Your task to perform on an android device: Empty the shopping cart on amazon. Search for "logitech g910" on amazon, select the first entry, add it to the cart, then select checkout. Image 0: 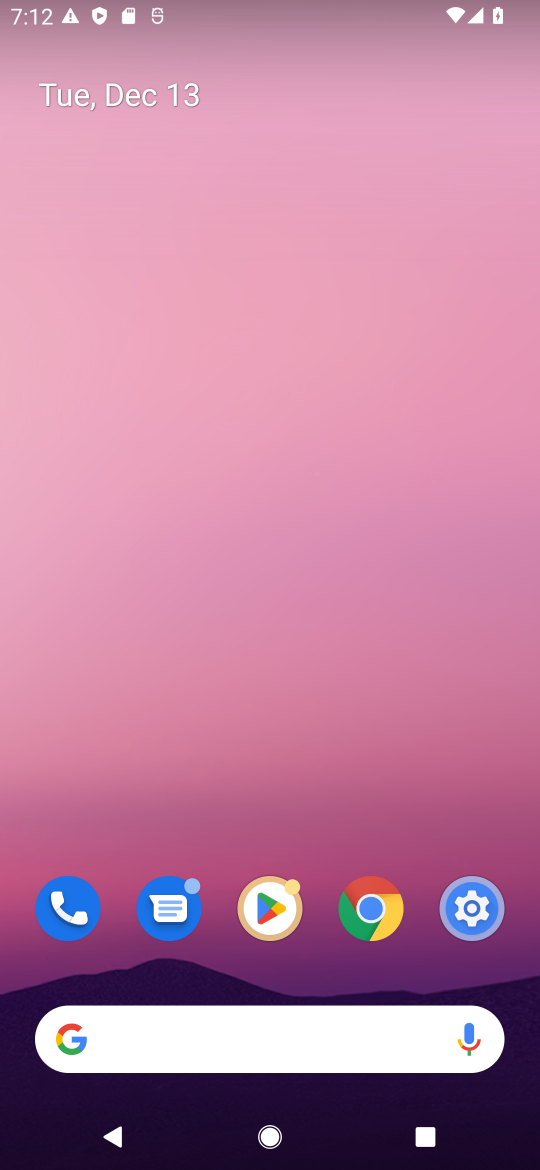
Step 0: press home button
Your task to perform on an android device: Empty the shopping cart on amazon. Search for "logitech g910" on amazon, select the first entry, add it to the cart, then select checkout. Image 1: 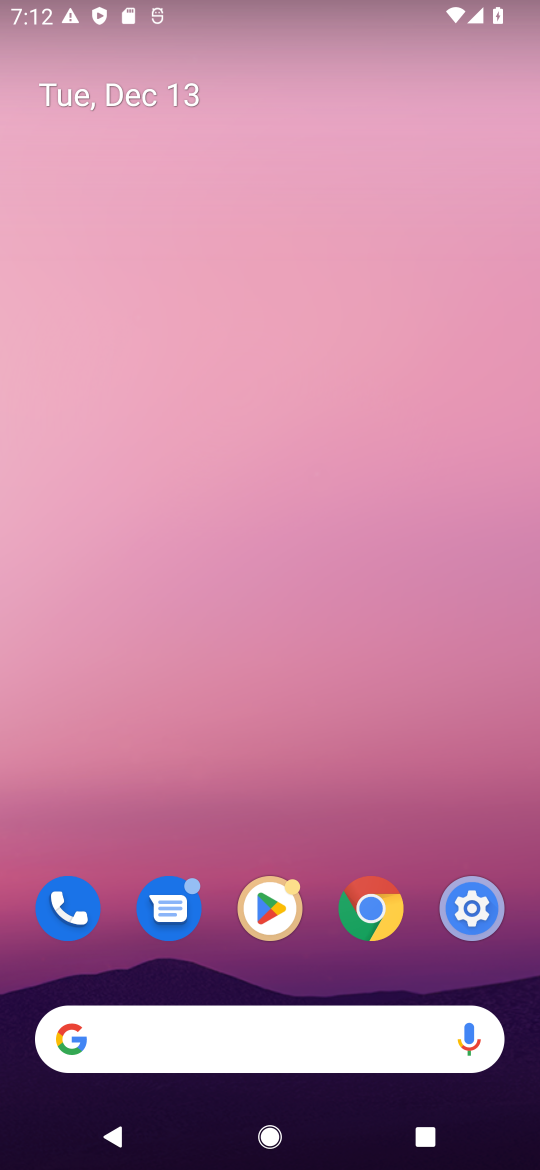
Step 1: click (100, 1041)
Your task to perform on an android device: Empty the shopping cart on amazon. Search for "logitech g910" on amazon, select the first entry, add it to the cart, then select checkout. Image 2: 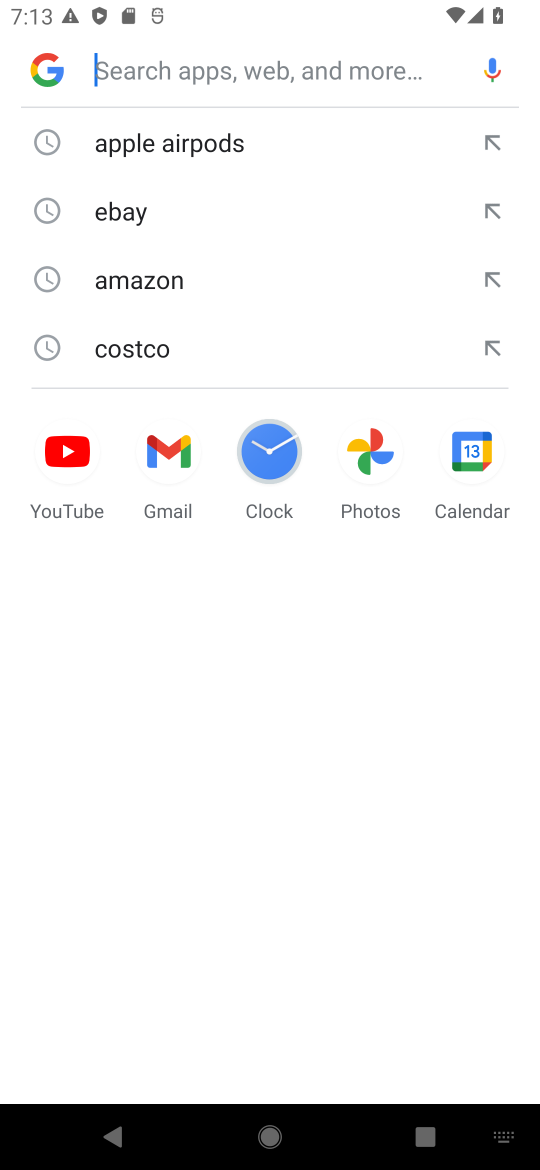
Step 2: type "amazon"
Your task to perform on an android device: Empty the shopping cart on amazon. Search for "logitech g910" on amazon, select the first entry, add it to the cart, then select checkout. Image 3: 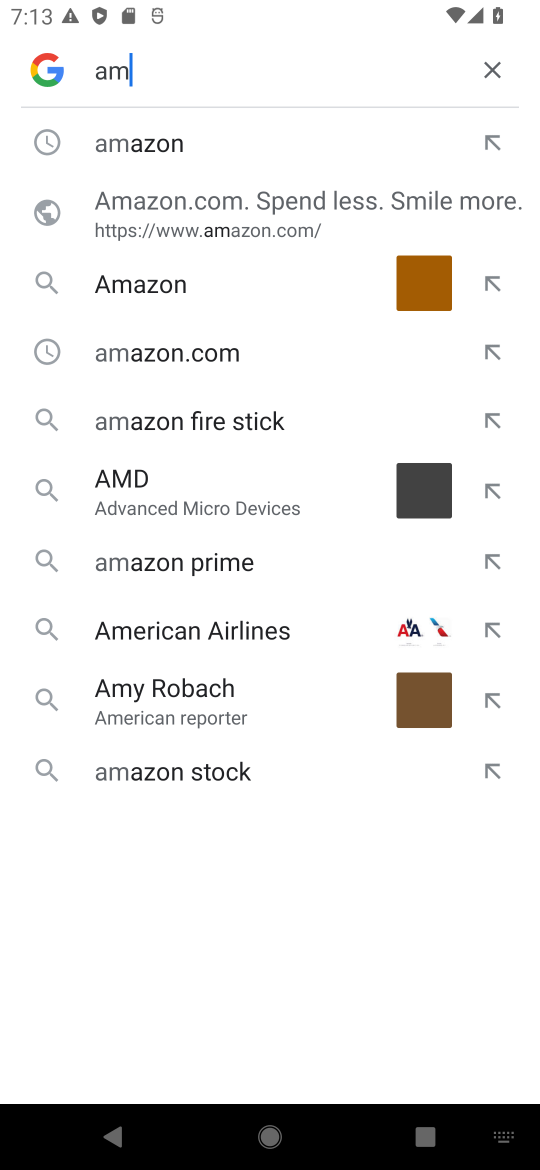
Step 3: press enter
Your task to perform on an android device: Empty the shopping cart on amazon. Search for "logitech g910" on amazon, select the first entry, add it to the cart, then select checkout. Image 4: 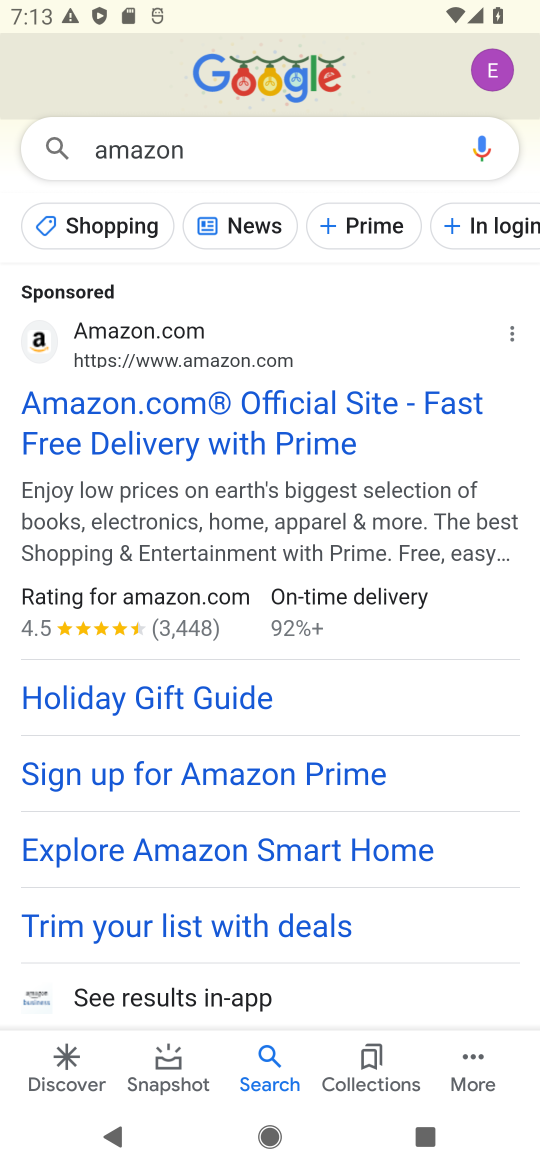
Step 4: click (125, 410)
Your task to perform on an android device: Empty the shopping cart on amazon. Search for "logitech g910" on amazon, select the first entry, add it to the cart, then select checkout. Image 5: 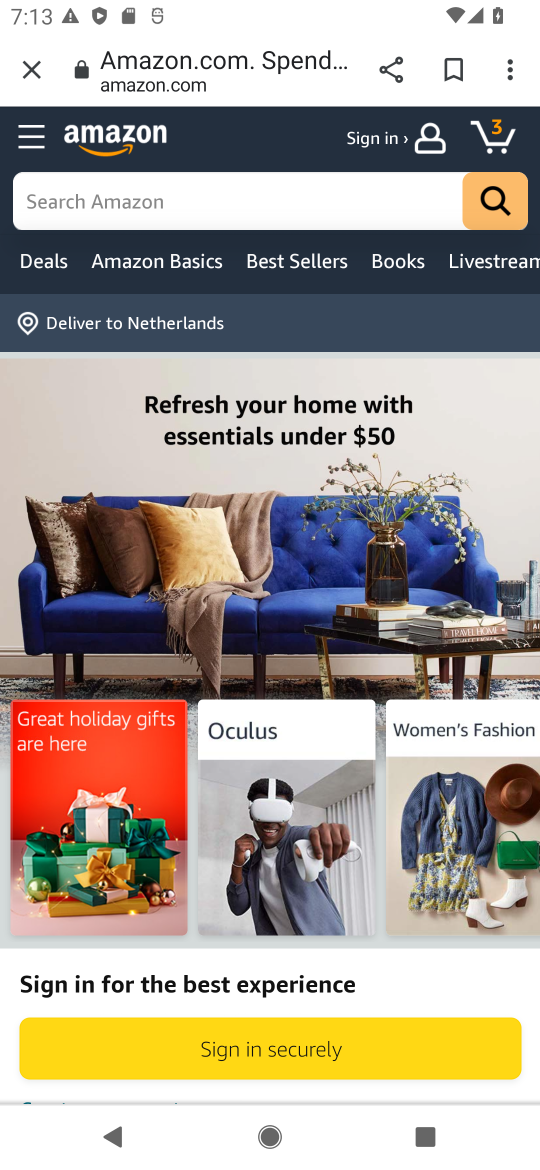
Step 5: click (504, 134)
Your task to perform on an android device: Empty the shopping cart on amazon. Search for "logitech g910" on amazon, select the first entry, add it to the cart, then select checkout. Image 6: 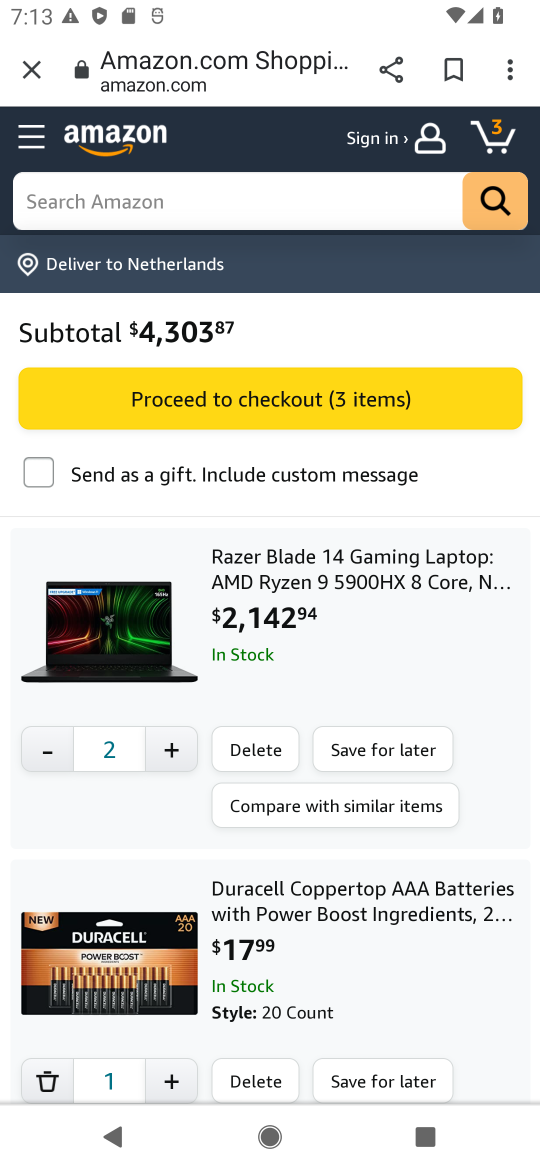
Step 6: click (261, 742)
Your task to perform on an android device: Empty the shopping cart on amazon. Search for "logitech g910" on amazon, select the first entry, add it to the cart, then select checkout. Image 7: 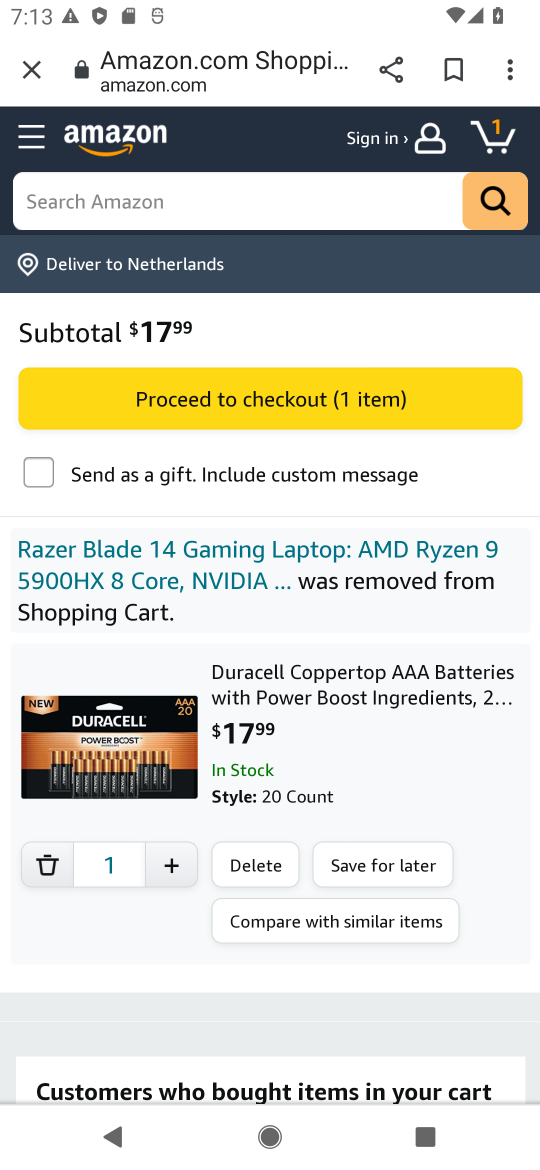
Step 7: click (261, 861)
Your task to perform on an android device: Empty the shopping cart on amazon. Search for "logitech g910" on amazon, select the first entry, add it to the cart, then select checkout. Image 8: 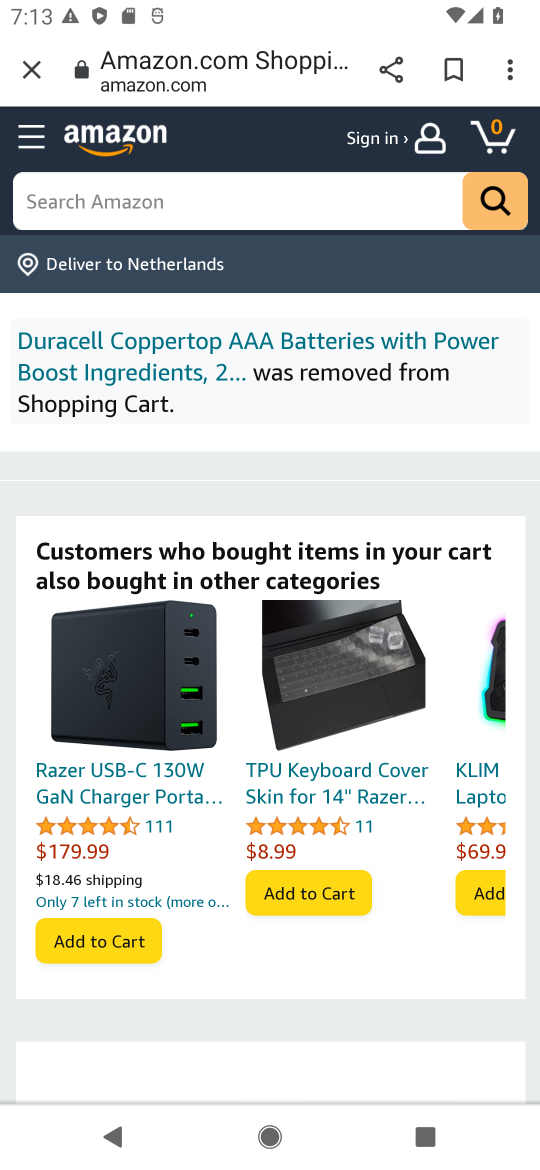
Step 8: click (186, 194)
Your task to perform on an android device: Empty the shopping cart on amazon. Search for "logitech g910" on amazon, select the first entry, add it to the cart, then select checkout. Image 9: 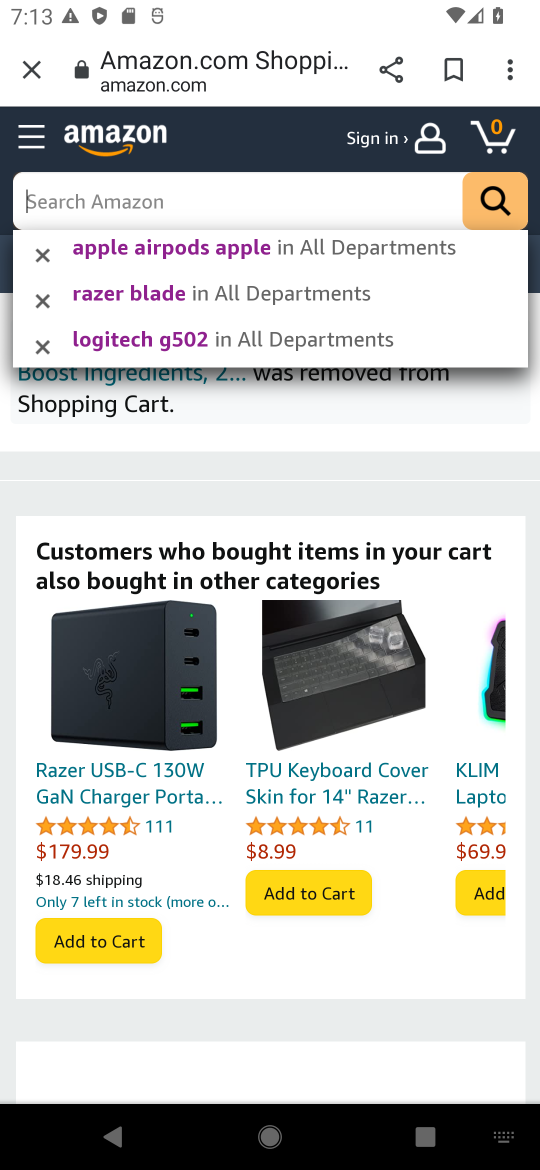
Step 9: type "logitech g910"
Your task to perform on an android device: Empty the shopping cart on amazon. Search for "logitech g910" on amazon, select the first entry, add it to the cart, then select checkout. Image 10: 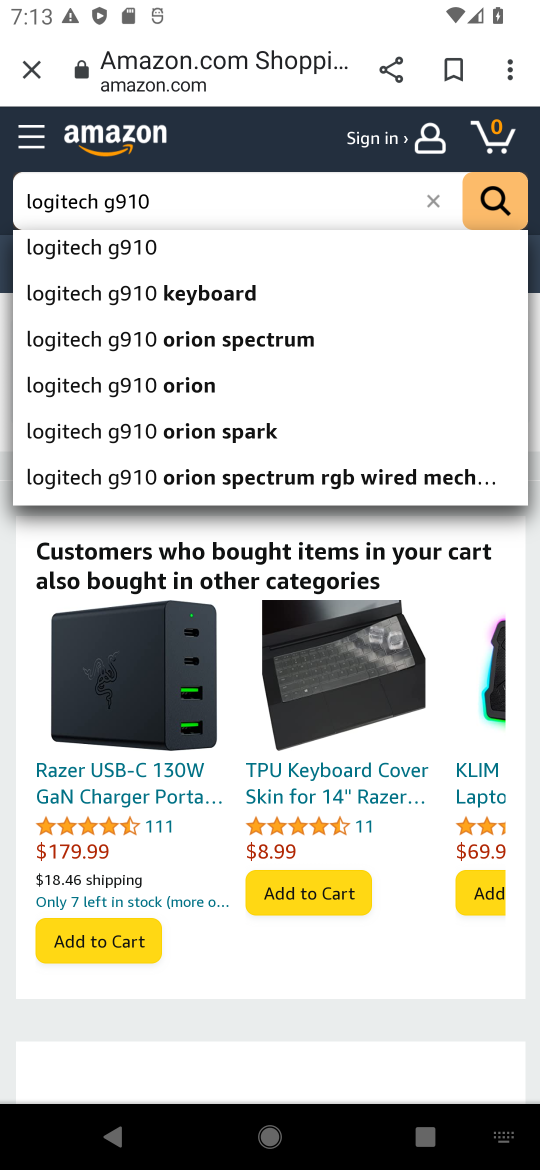
Step 10: click (487, 192)
Your task to perform on an android device: Empty the shopping cart on amazon. Search for "logitech g910" on amazon, select the first entry, add it to the cart, then select checkout. Image 11: 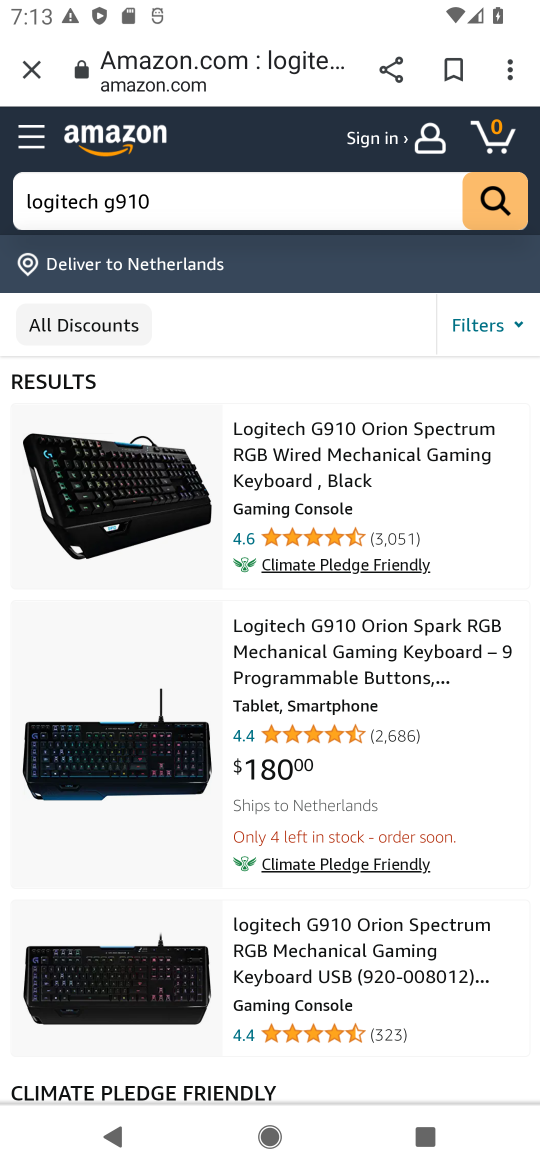
Step 11: click (296, 460)
Your task to perform on an android device: Empty the shopping cart on amazon. Search for "logitech g910" on amazon, select the first entry, add it to the cart, then select checkout. Image 12: 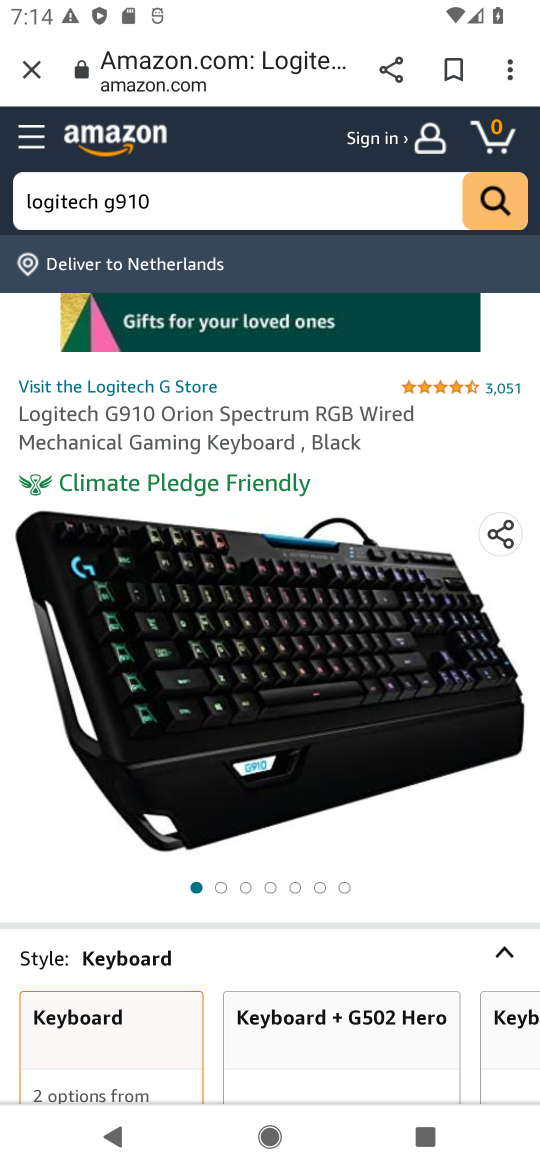
Step 12: task complete